Your task to perform on an android device: Open my contact list Image 0: 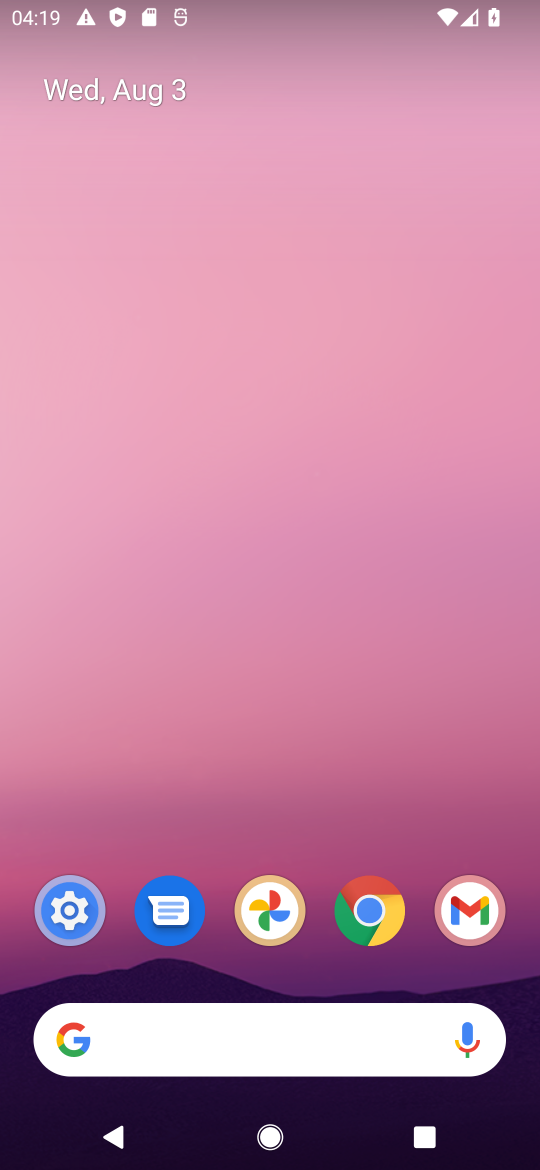
Step 0: press home button
Your task to perform on an android device: Open my contact list Image 1: 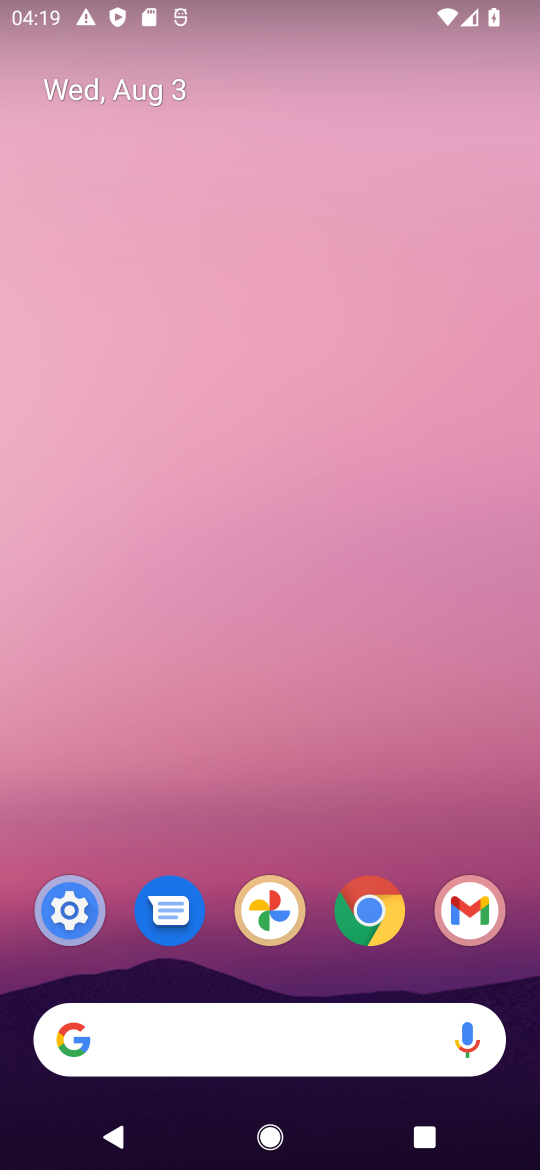
Step 1: drag from (314, 870) to (313, 17)
Your task to perform on an android device: Open my contact list Image 2: 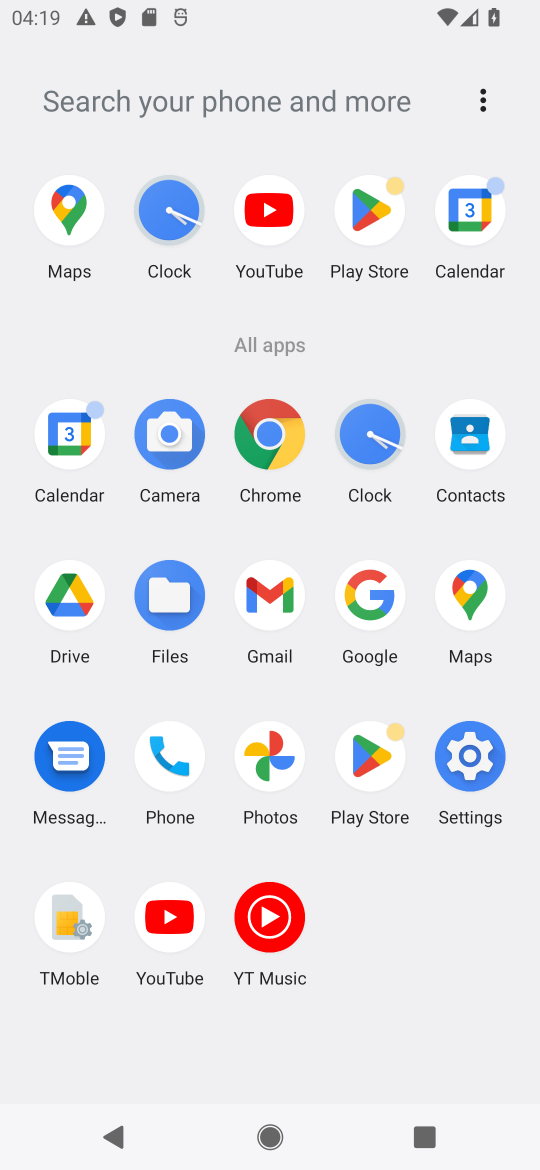
Step 2: click (467, 429)
Your task to perform on an android device: Open my contact list Image 3: 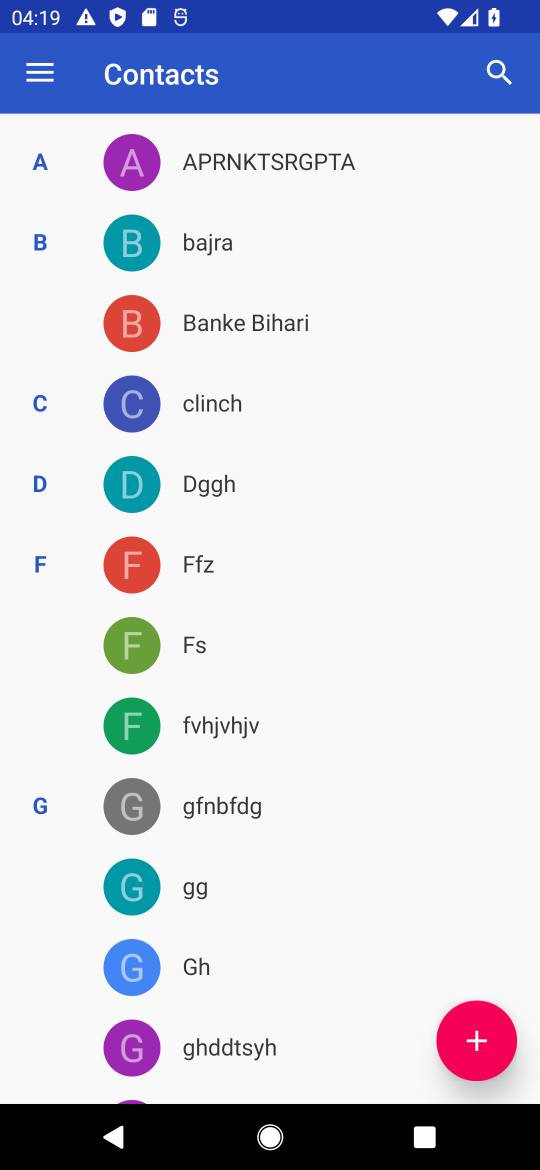
Step 3: task complete